Your task to perform on an android device: delete location history Image 0: 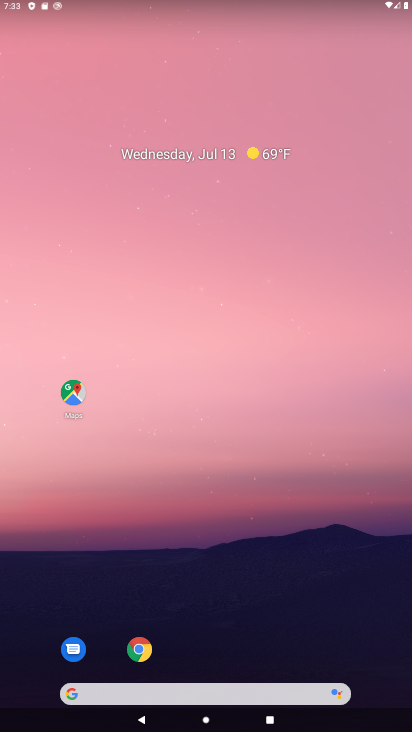
Step 0: drag from (262, 643) to (289, 425)
Your task to perform on an android device: delete location history Image 1: 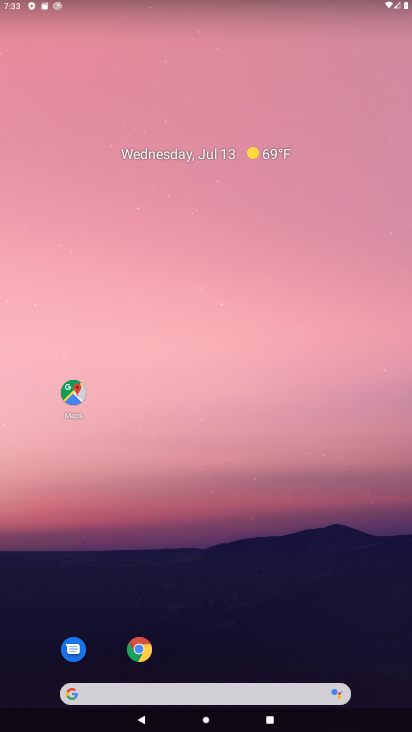
Step 1: drag from (136, 678) to (175, 412)
Your task to perform on an android device: delete location history Image 2: 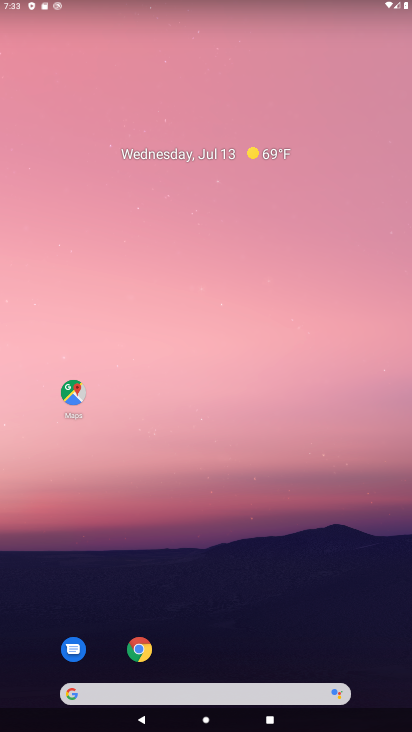
Step 2: drag from (221, 692) to (283, 261)
Your task to perform on an android device: delete location history Image 3: 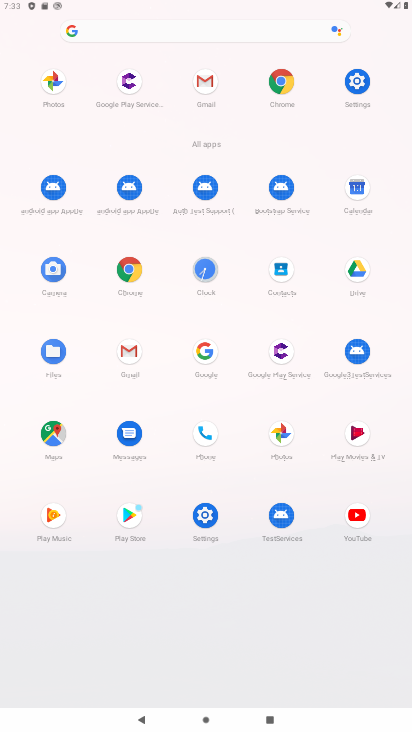
Step 3: click (348, 80)
Your task to perform on an android device: delete location history Image 4: 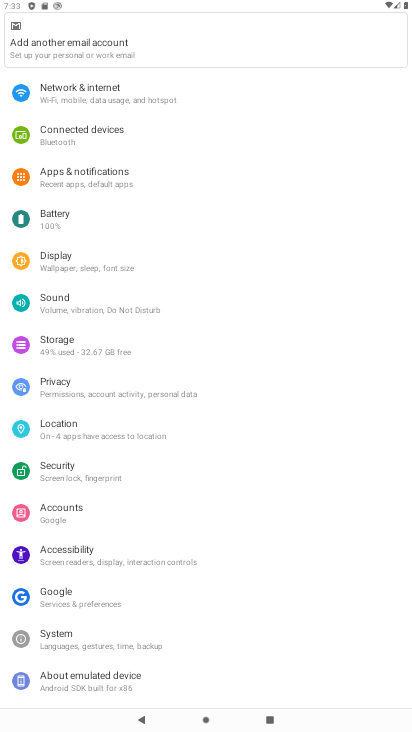
Step 4: click (70, 434)
Your task to perform on an android device: delete location history Image 5: 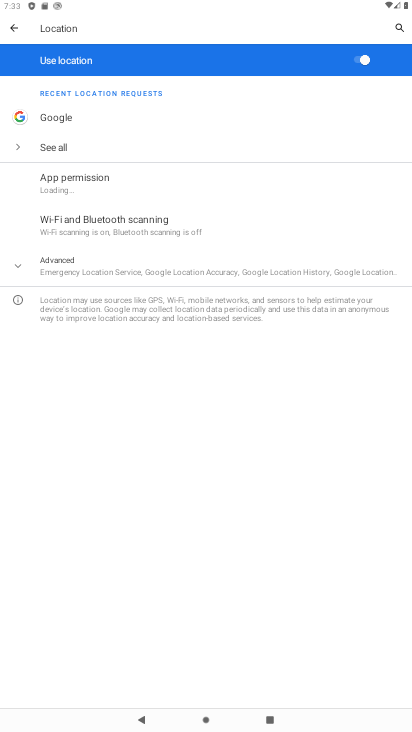
Step 5: click (104, 174)
Your task to perform on an android device: delete location history Image 6: 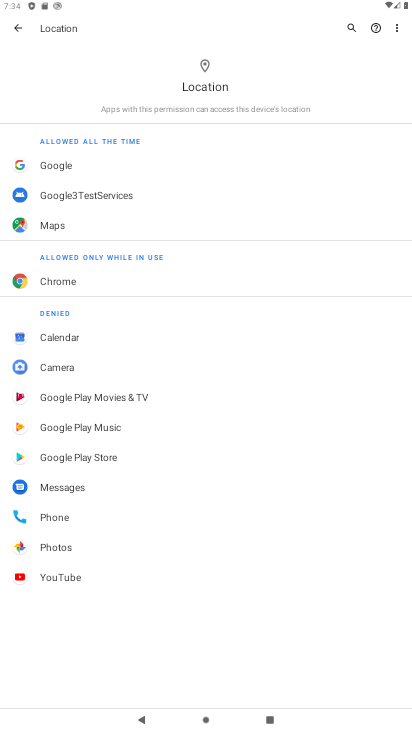
Step 6: click (13, 22)
Your task to perform on an android device: delete location history Image 7: 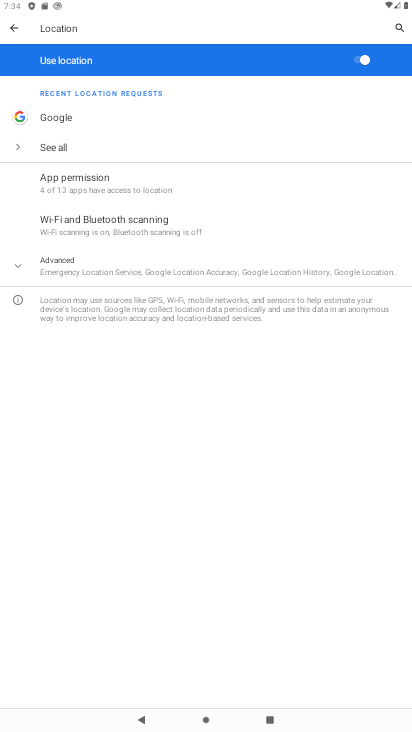
Step 7: click (118, 266)
Your task to perform on an android device: delete location history Image 8: 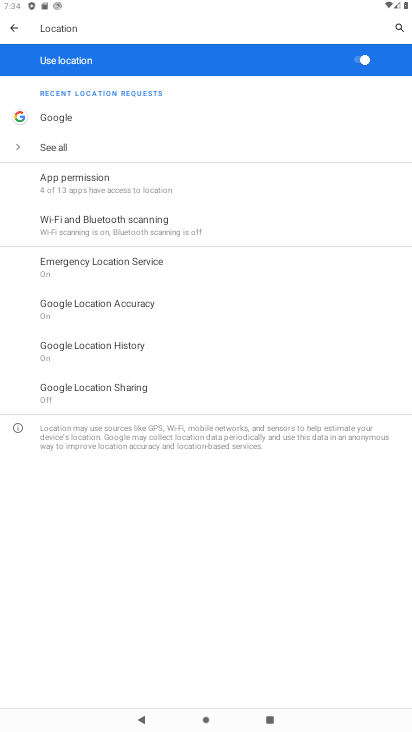
Step 8: click (100, 352)
Your task to perform on an android device: delete location history Image 9: 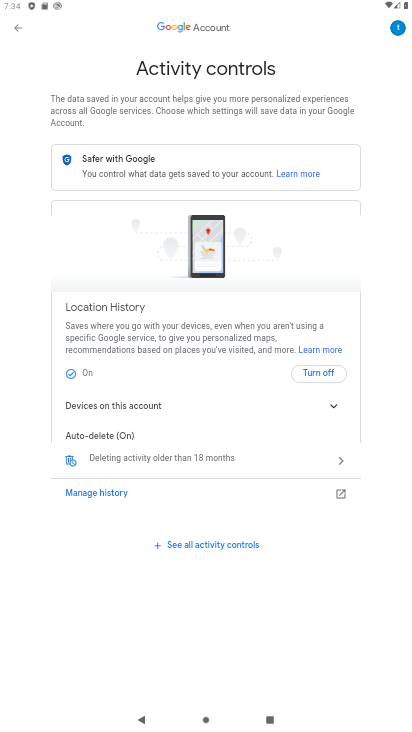
Step 9: click (117, 440)
Your task to perform on an android device: delete location history Image 10: 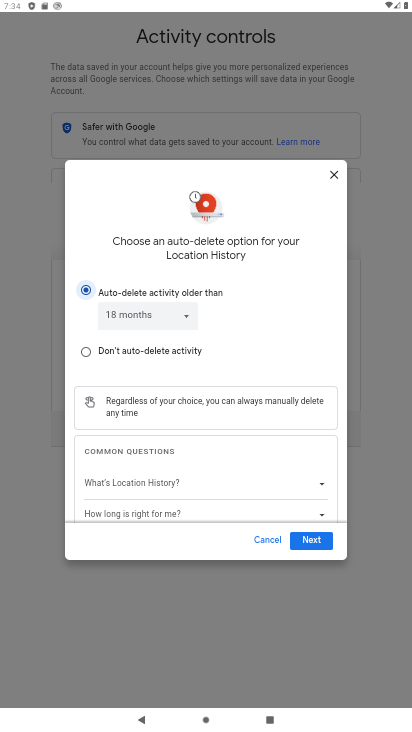
Step 10: click (317, 539)
Your task to perform on an android device: delete location history Image 11: 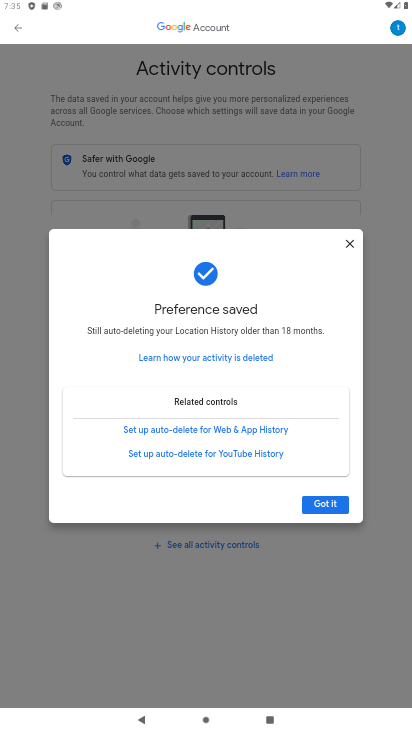
Step 11: click (315, 507)
Your task to perform on an android device: delete location history Image 12: 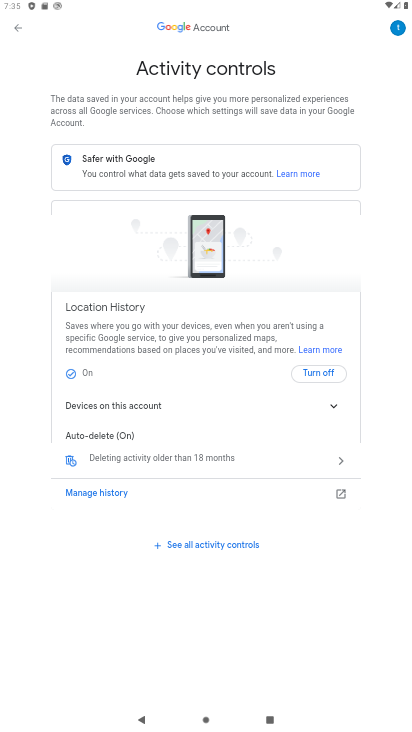
Step 12: task complete